Your task to perform on an android device: change your default location settings in chrome Image 0: 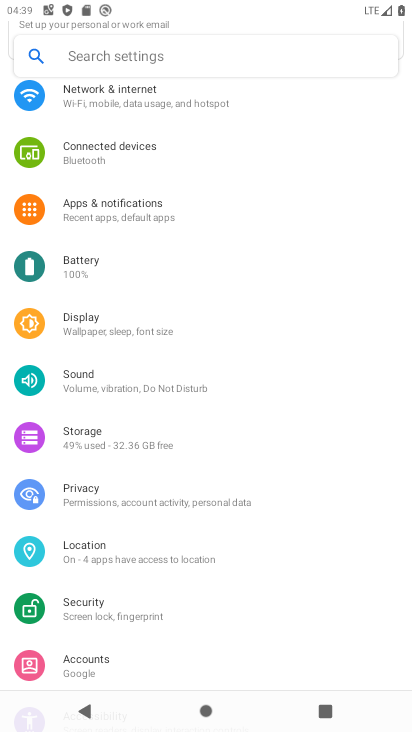
Step 0: press home button
Your task to perform on an android device: change your default location settings in chrome Image 1: 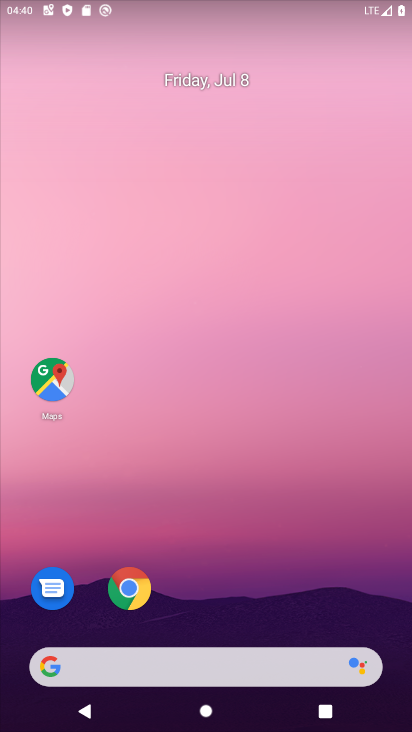
Step 1: click (128, 588)
Your task to perform on an android device: change your default location settings in chrome Image 2: 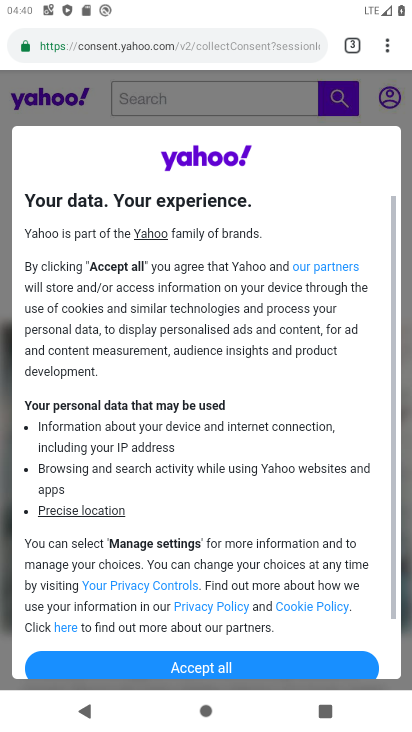
Step 2: click (386, 47)
Your task to perform on an android device: change your default location settings in chrome Image 3: 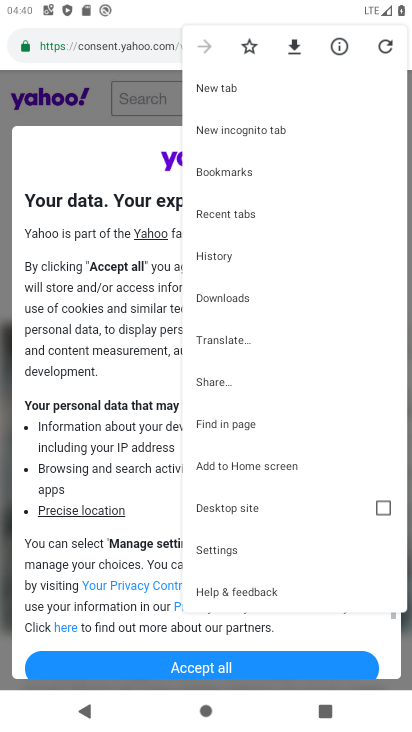
Step 3: click (222, 556)
Your task to perform on an android device: change your default location settings in chrome Image 4: 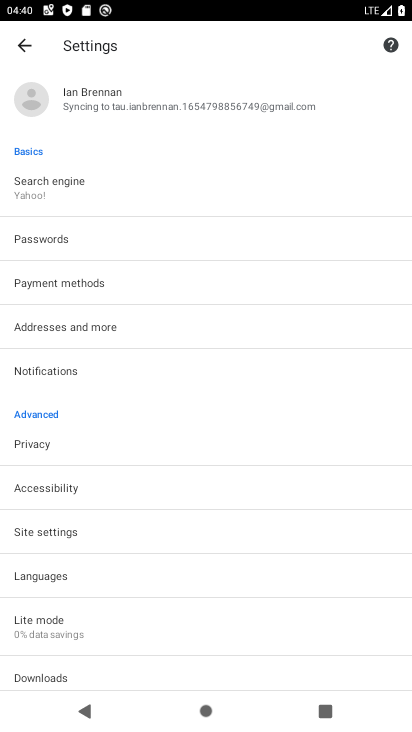
Step 4: click (53, 532)
Your task to perform on an android device: change your default location settings in chrome Image 5: 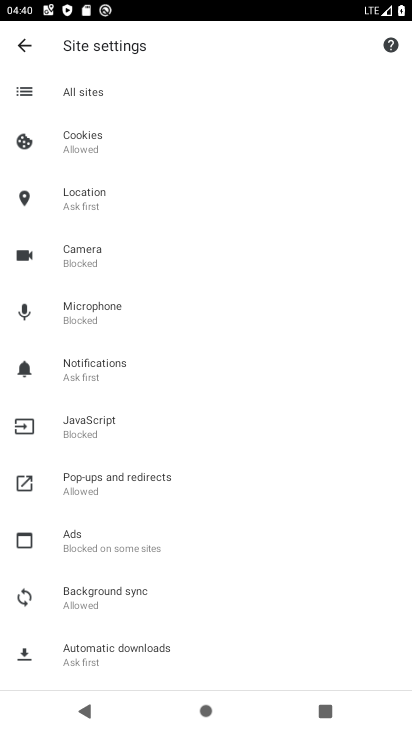
Step 5: click (92, 185)
Your task to perform on an android device: change your default location settings in chrome Image 6: 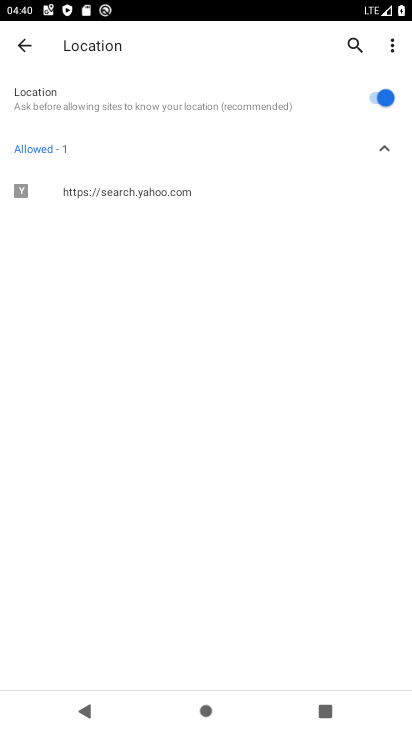
Step 6: click (376, 97)
Your task to perform on an android device: change your default location settings in chrome Image 7: 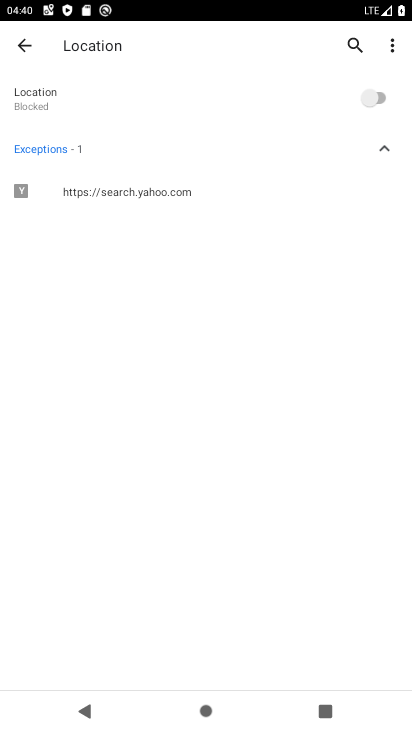
Step 7: task complete